Your task to perform on an android device: Show me productivity apps on the Play Store Image 0: 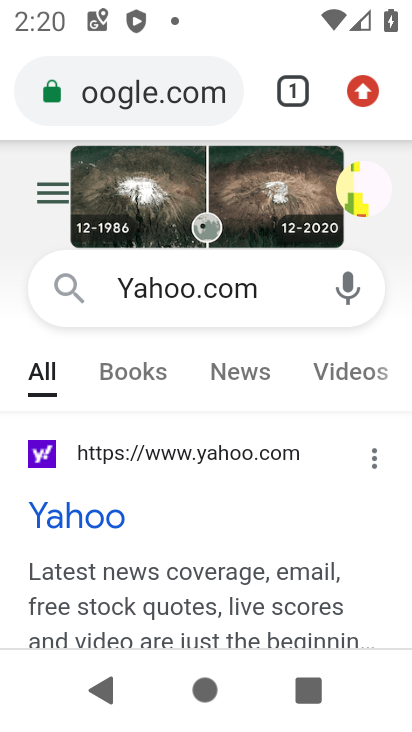
Step 0: press home button
Your task to perform on an android device: Show me productivity apps on the Play Store Image 1: 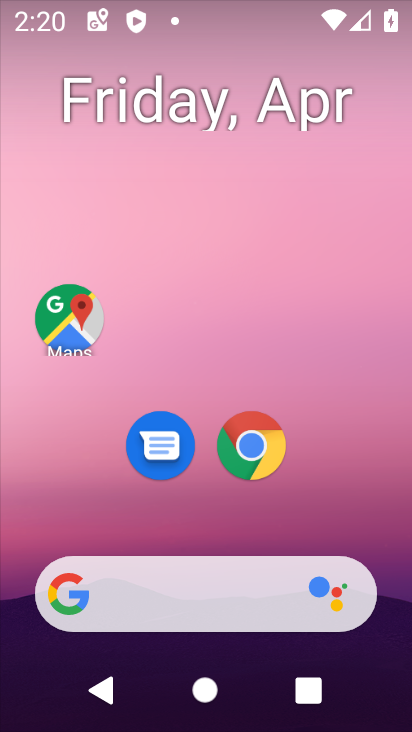
Step 1: drag from (322, 495) to (230, 50)
Your task to perform on an android device: Show me productivity apps on the Play Store Image 2: 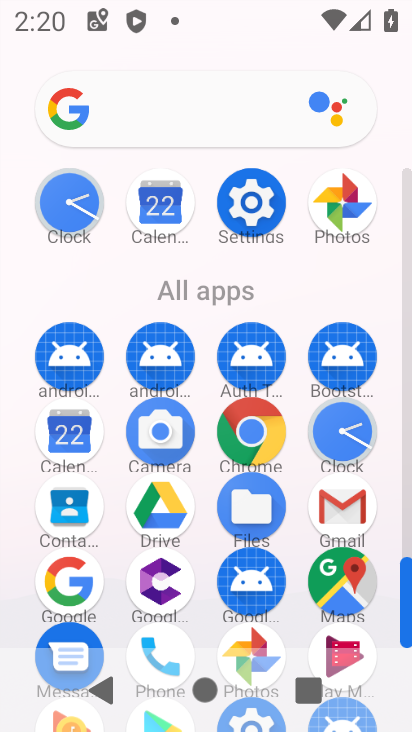
Step 2: drag from (299, 296) to (339, 105)
Your task to perform on an android device: Show me productivity apps on the Play Store Image 3: 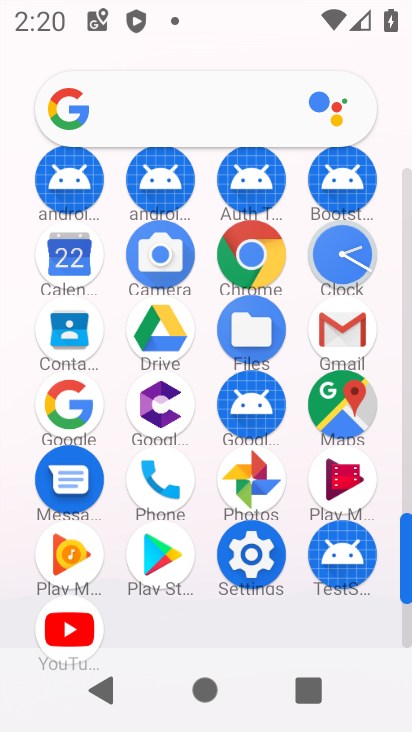
Step 3: click (162, 555)
Your task to perform on an android device: Show me productivity apps on the Play Store Image 4: 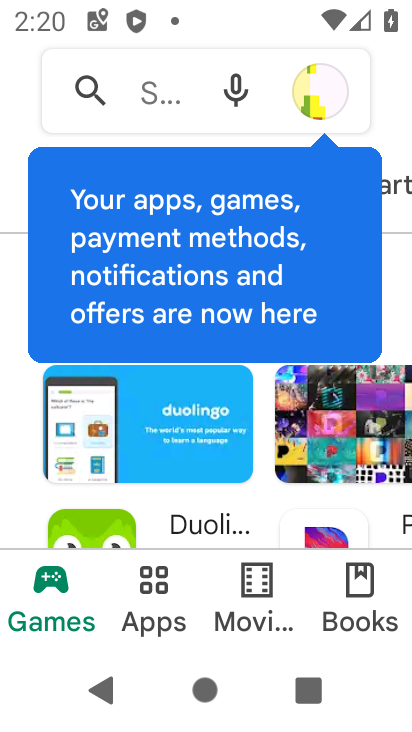
Step 4: click (151, 585)
Your task to perform on an android device: Show me productivity apps on the Play Store Image 5: 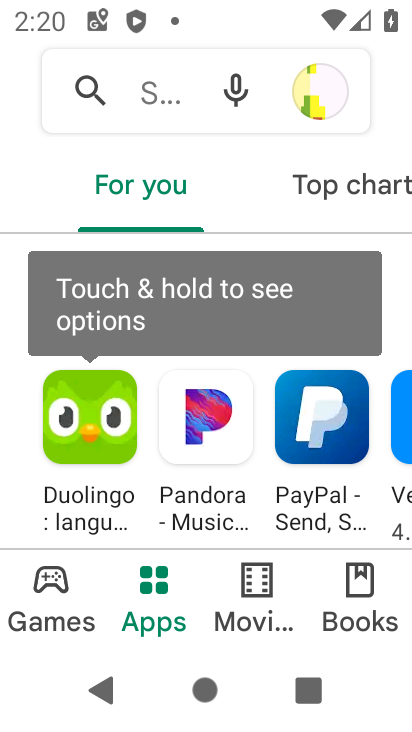
Step 5: drag from (370, 179) to (20, 262)
Your task to perform on an android device: Show me productivity apps on the Play Store Image 6: 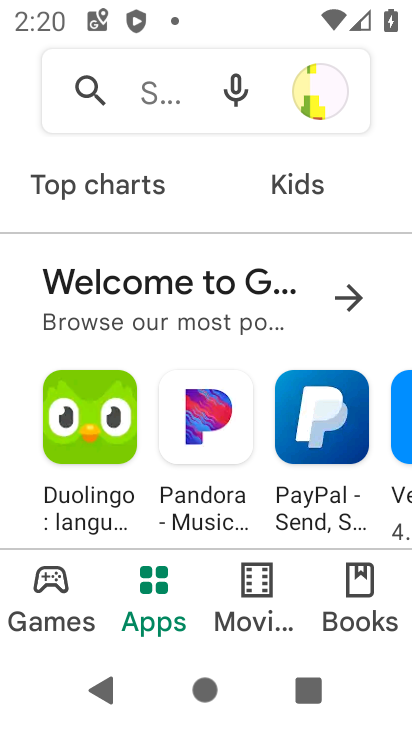
Step 6: drag from (347, 184) to (3, 195)
Your task to perform on an android device: Show me productivity apps on the Play Store Image 7: 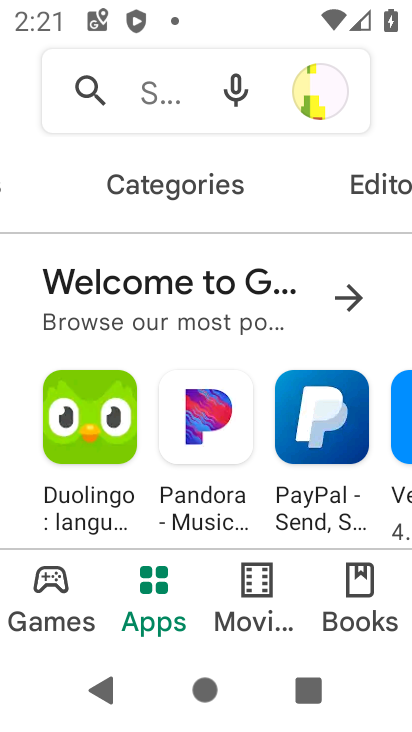
Step 7: click (156, 184)
Your task to perform on an android device: Show me productivity apps on the Play Store Image 8: 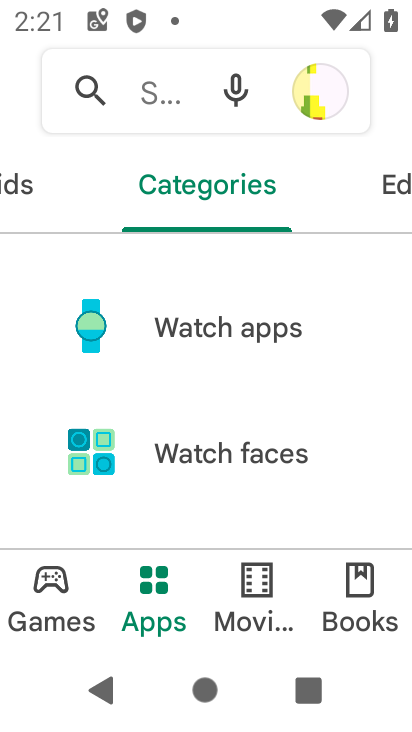
Step 8: drag from (224, 405) to (264, 243)
Your task to perform on an android device: Show me productivity apps on the Play Store Image 9: 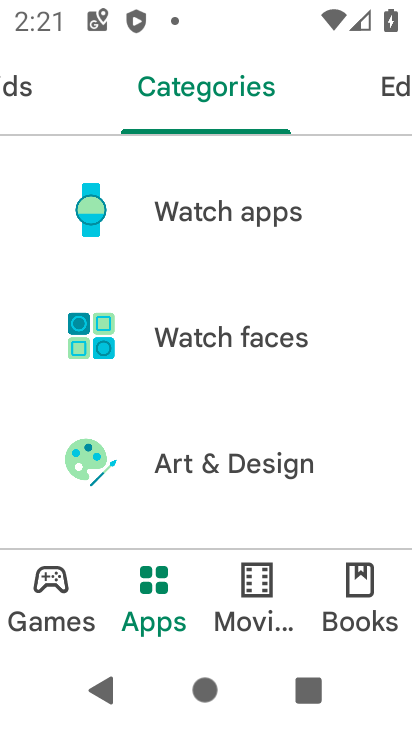
Step 9: drag from (215, 407) to (262, 244)
Your task to perform on an android device: Show me productivity apps on the Play Store Image 10: 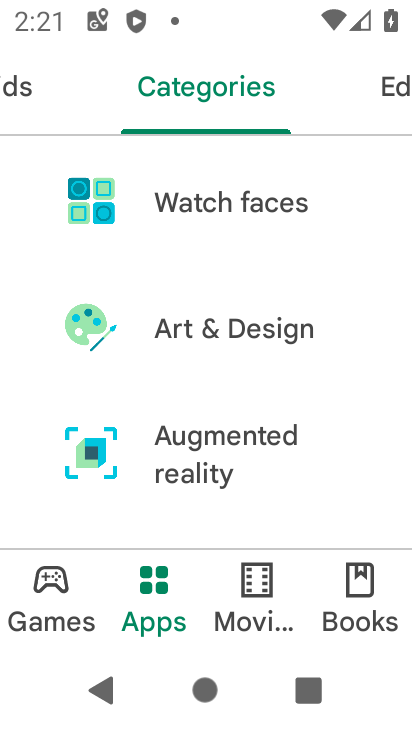
Step 10: drag from (181, 387) to (254, 258)
Your task to perform on an android device: Show me productivity apps on the Play Store Image 11: 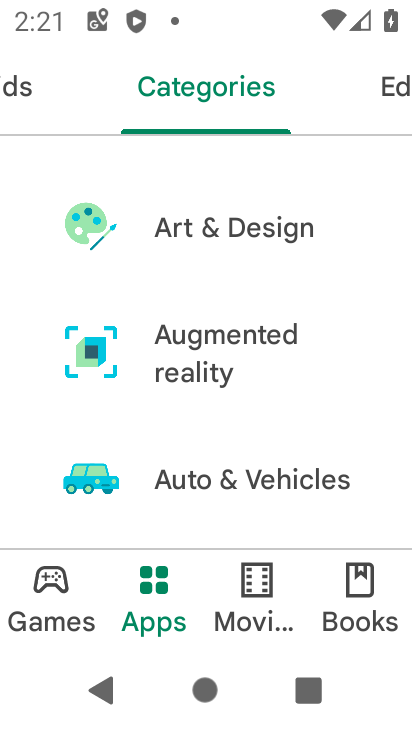
Step 11: drag from (194, 414) to (277, 283)
Your task to perform on an android device: Show me productivity apps on the Play Store Image 12: 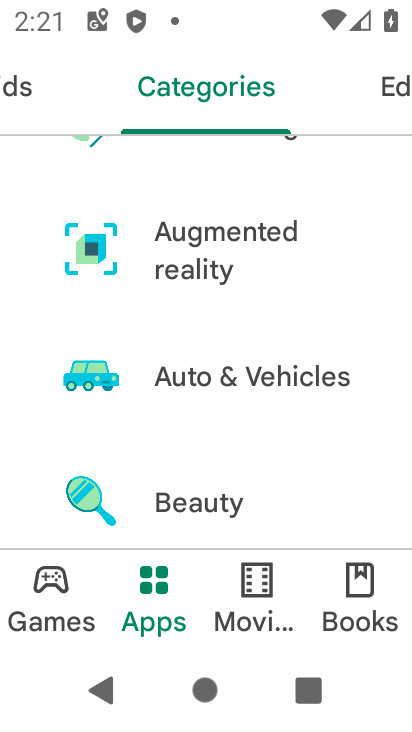
Step 12: drag from (193, 439) to (292, 294)
Your task to perform on an android device: Show me productivity apps on the Play Store Image 13: 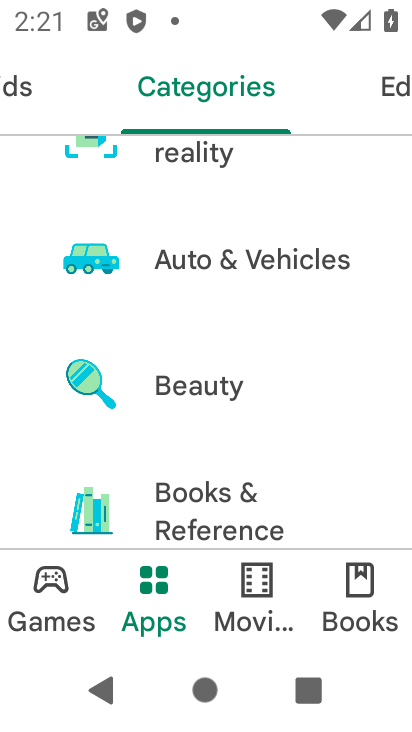
Step 13: drag from (180, 450) to (273, 306)
Your task to perform on an android device: Show me productivity apps on the Play Store Image 14: 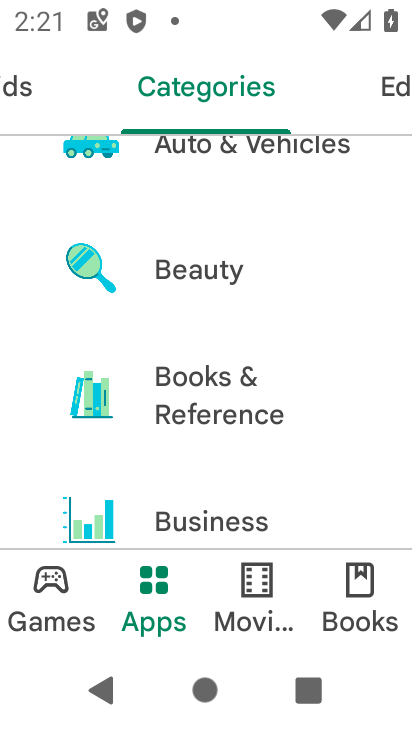
Step 14: drag from (197, 464) to (280, 311)
Your task to perform on an android device: Show me productivity apps on the Play Store Image 15: 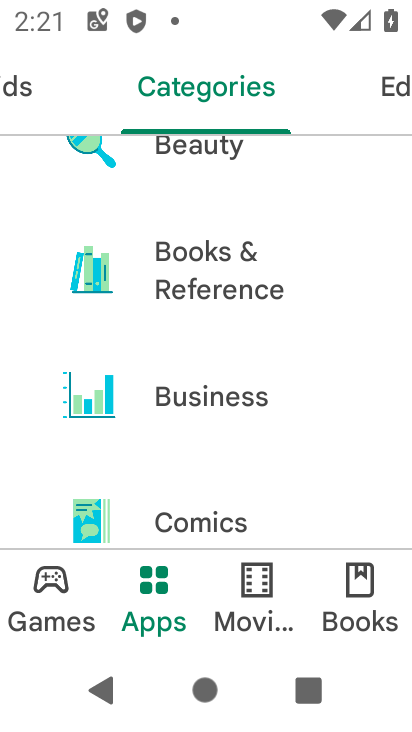
Step 15: drag from (192, 464) to (299, 302)
Your task to perform on an android device: Show me productivity apps on the Play Store Image 16: 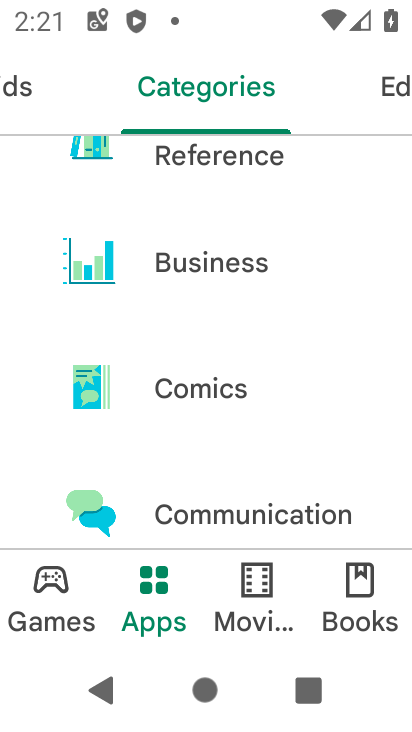
Step 16: drag from (190, 447) to (295, 304)
Your task to perform on an android device: Show me productivity apps on the Play Store Image 17: 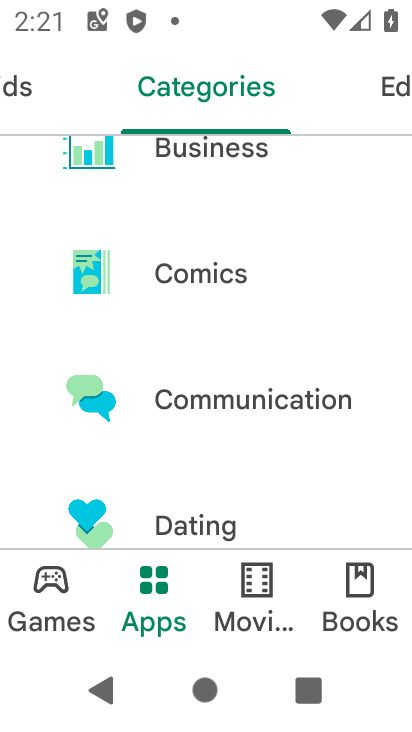
Step 17: drag from (176, 466) to (287, 280)
Your task to perform on an android device: Show me productivity apps on the Play Store Image 18: 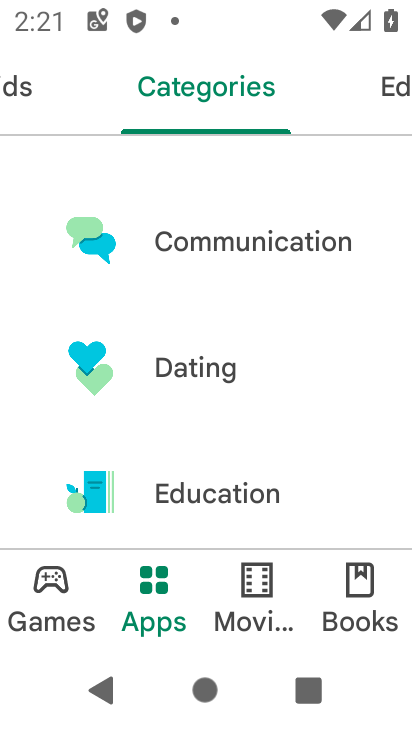
Step 18: drag from (177, 447) to (278, 283)
Your task to perform on an android device: Show me productivity apps on the Play Store Image 19: 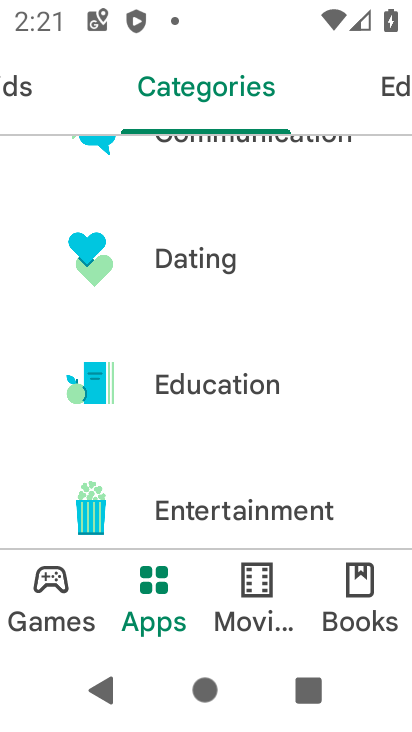
Step 19: drag from (160, 451) to (258, 286)
Your task to perform on an android device: Show me productivity apps on the Play Store Image 20: 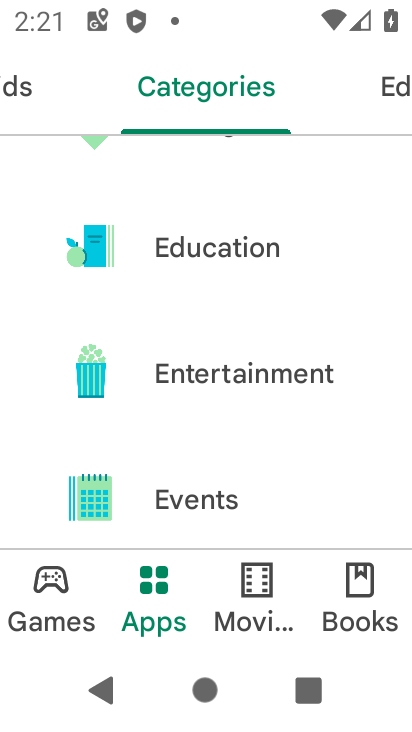
Step 20: drag from (155, 444) to (263, 309)
Your task to perform on an android device: Show me productivity apps on the Play Store Image 21: 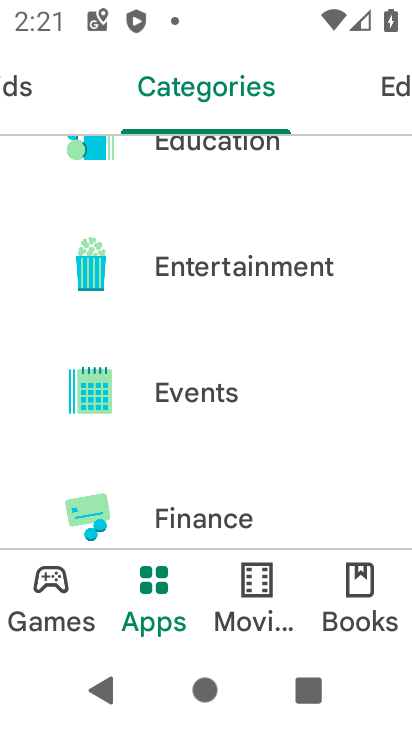
Step 21: drag from (148, 462) to (272, 287)
Your task to perform on an android device: Show me productivity apps on the Play Store Image 22: 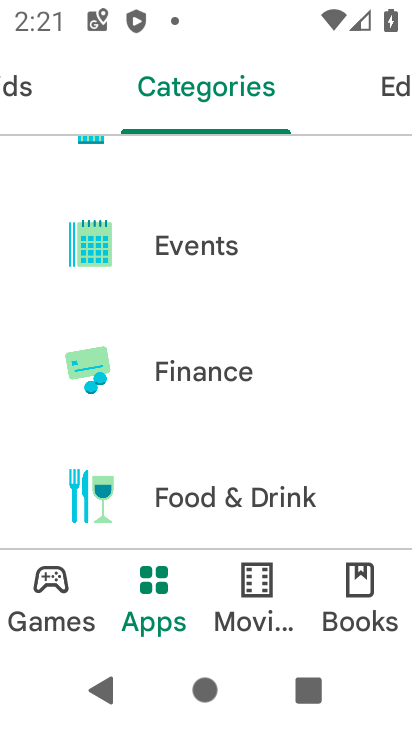
Step 22: drag from (174, 431) to (297, 269)
Your task to perform on an android device: Show me productivity apps on the Play Store Image 23: 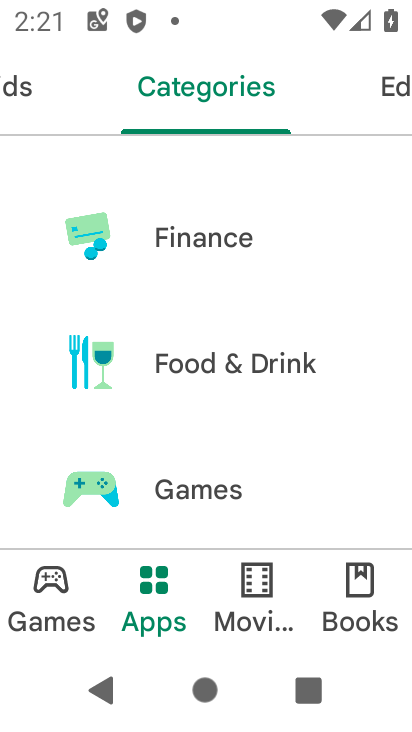
Step 23: drag from (136, 437) to (252, 276)
Your task to perform on an android device: Show me productivity apps on the Play Store Image 24: 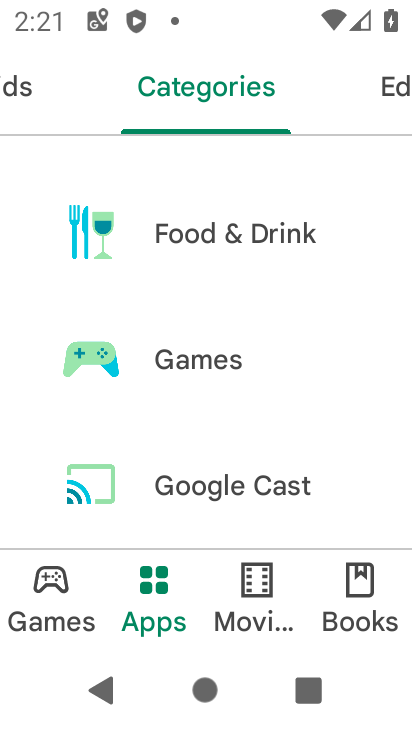
Step 24: drag from (139, 415) to (301, 266)
Your task to perform on an android device: Show me productivity apps on the Play Store Image 25: 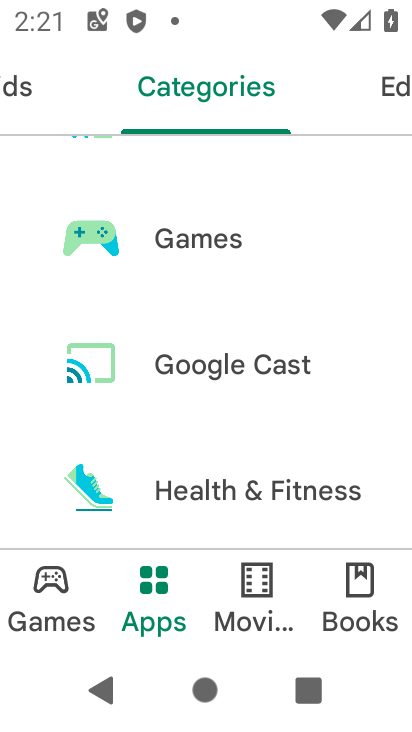
Step 25: drag from (142, 452) to (242, 253)
Your task to perform on an android device: Show me productivity apps on the Play Store Image 26: 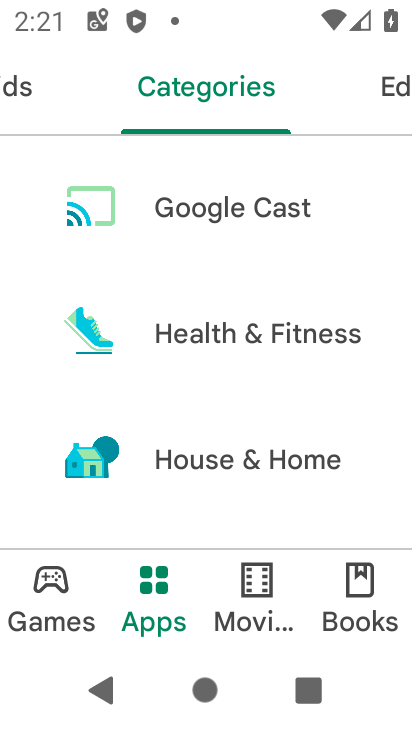
Step 26: drag from (91, 412) to (240, 247)
Your task to perform on an android device: Show me productivity apps on the Play Store Image 27: 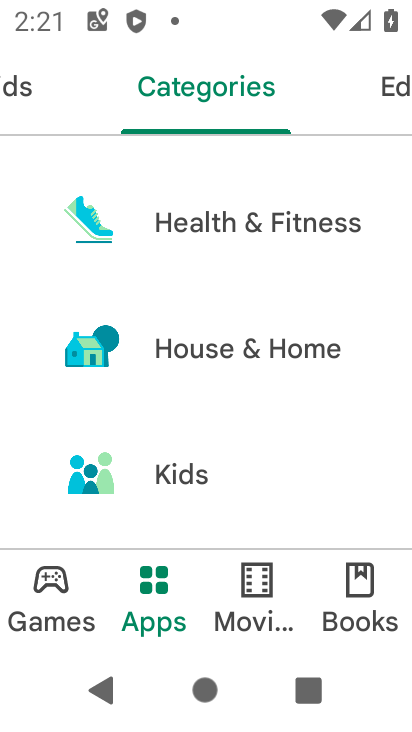
Step 27: drag from (112, 425) to (219, 253)
Your task to perform on an android device: Show me productivity apps on the Play Store Image 28: 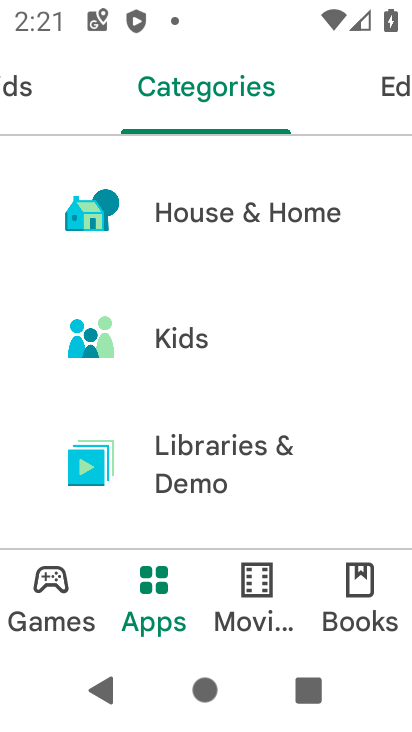
Step 28: drag from (106, 405) to (235, 253)
Your task to perform on an android device: Show me productivity apps on the Play Store Image 29: 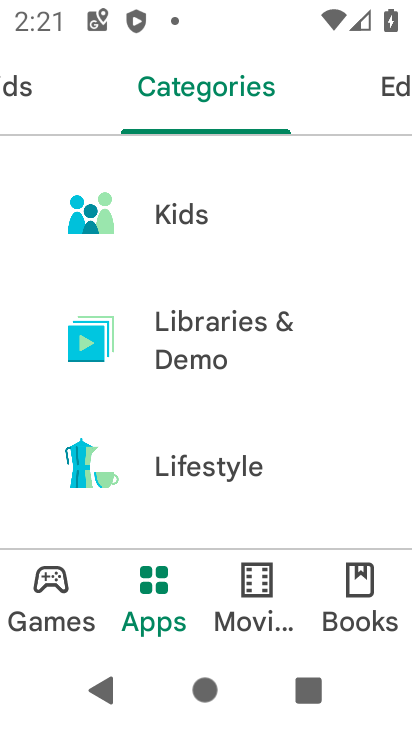
Step 29: drag from (112, 415) to (256, 255)
Your task to perform on an android device: Show me productivity apps on the Play Store Image 30: 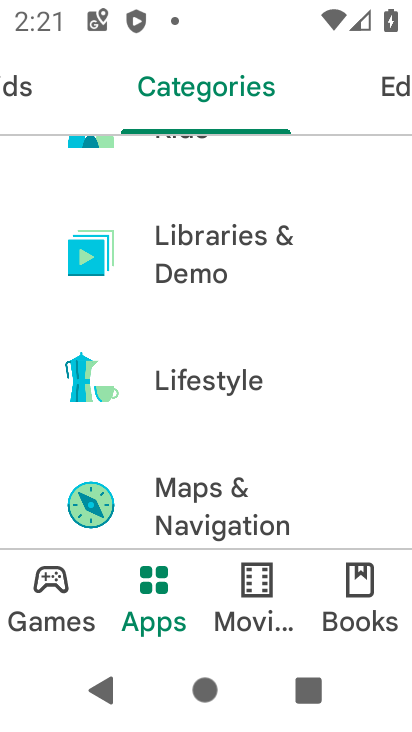
Step 30: drag from (83, 453) to (231, 285)
Your task to perform on an android device: Show me productivity apps on the Play Store Image 31: 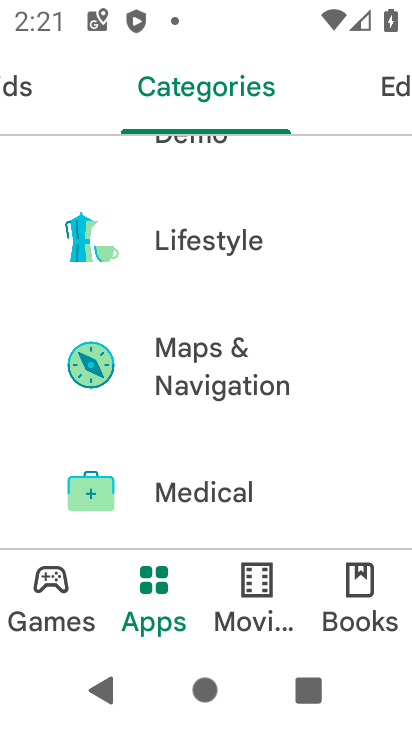
Step 31: drag from (76, 435) to (197, 248)
Your task to perform on an android device: Show me productivity apps on the Play Store Image 32: 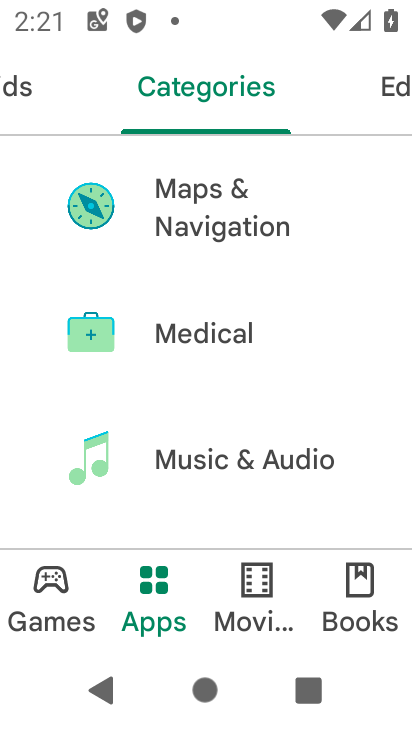
Step 32: drag from (82, 396) to (226, 245)
Your task to perform on an android device: Show me productivity apps on the Play Store Image 33: 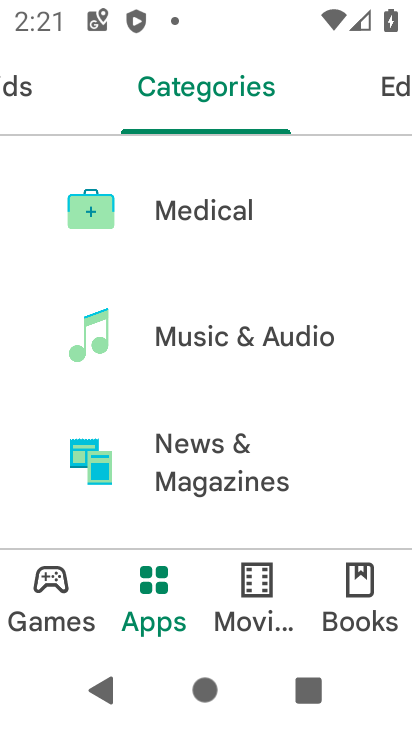
Step 33: drag from (103, 409) to (212, 275)
Your task to perform on an android device: Show me productivity apps on the Play Store Image 34: 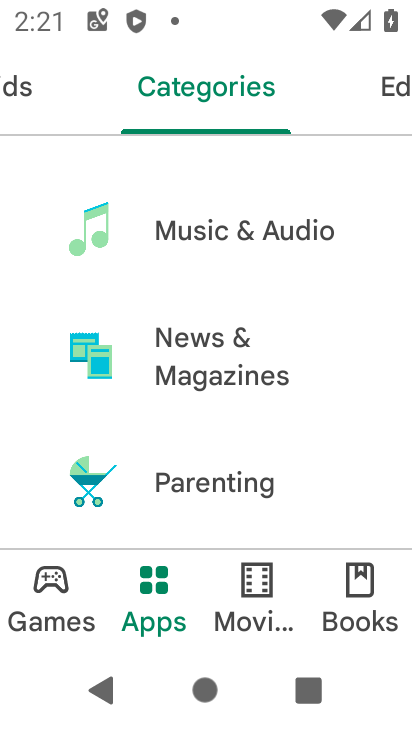
Step 34: drag from (95, 431) to (219, 270)
Your task to perform on an android device: Show me productivity apps on the Play Store Image 35: 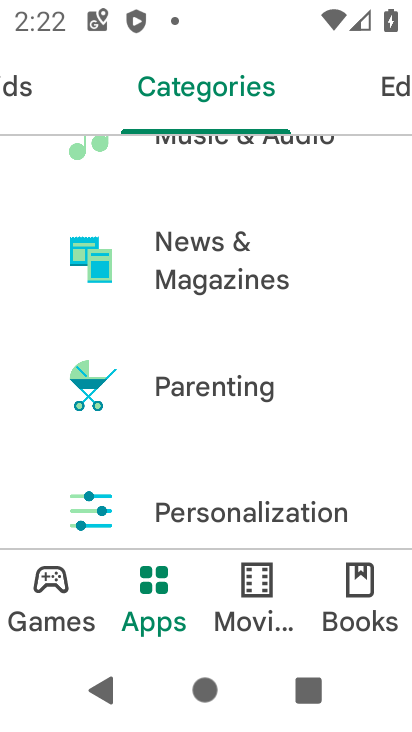
Step 35: drag from (88, 445) to (248, 246)
Your task to perform on an android device: Show me productivity apps on the Play Store Image 36: 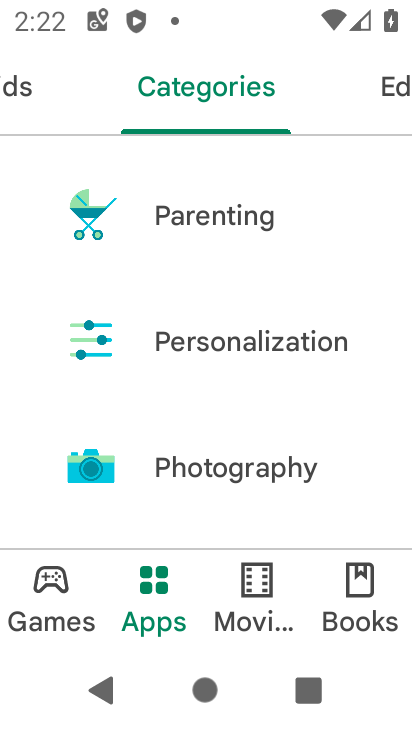
Step 36: drag from (84, 403) to (173, 247)
Your task to perform on an android device: Show me productivity apps on the Play Store Image 37: 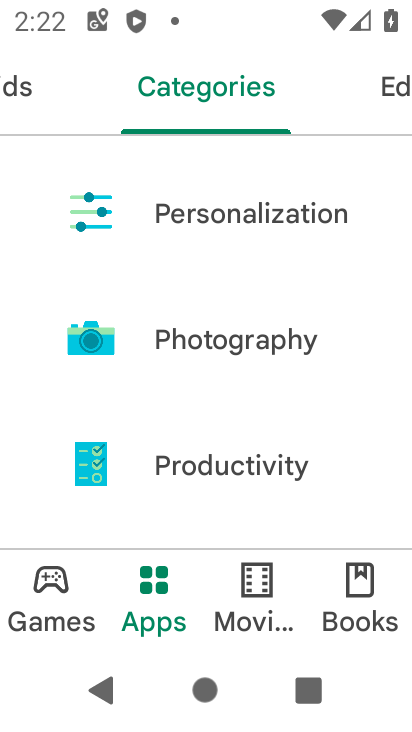
Step 37: click (258, 469)
Your task to perform on an android device: Show me productivity apps on the Play Store Image 38: 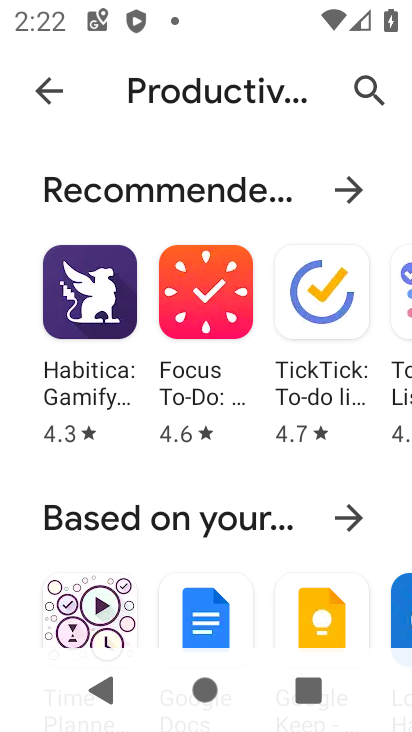
Step 38: task complete